Your task to perform on an android device: Go to network settings Image 0: 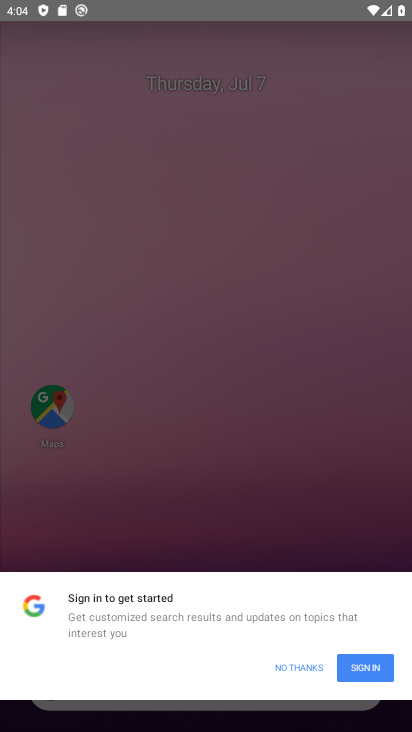
Step 0: press home button
Your task to perform on an android device: Go to network settings Image 1: 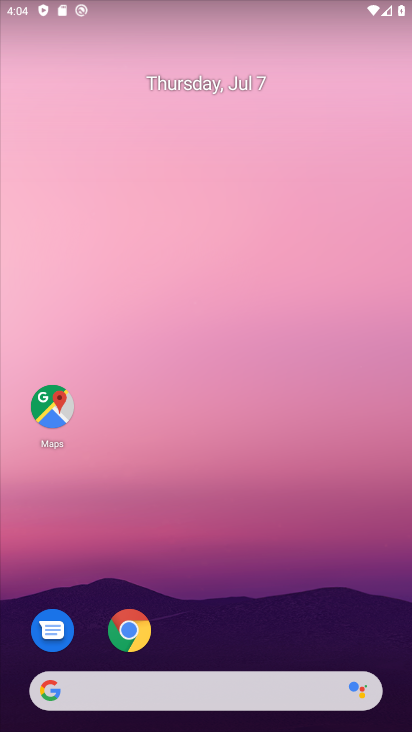
Step 1: drag from (212, 626) to (296, 45)
Your task to perform on an android device: Go to network settings Image 2: 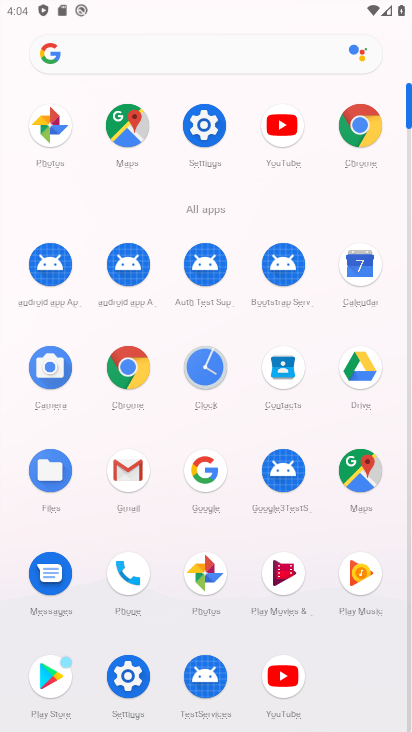
Step 2: click (142, 682)
Your task to perform on an android device: Go to network settings Image 3: 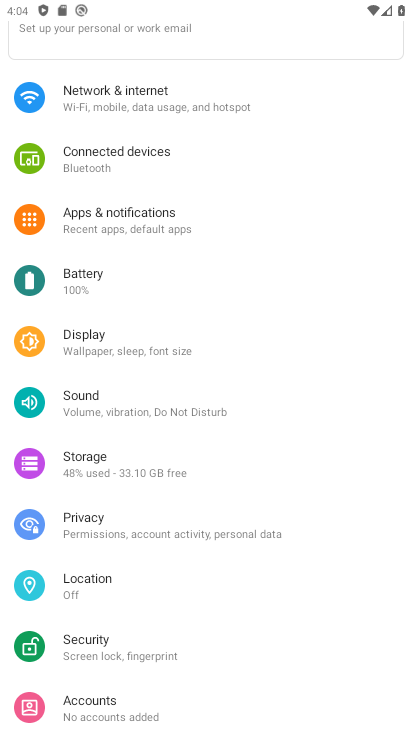
Step 3: click (123, 98)
Your task to perform on an android device: Go to network settings Image 4: 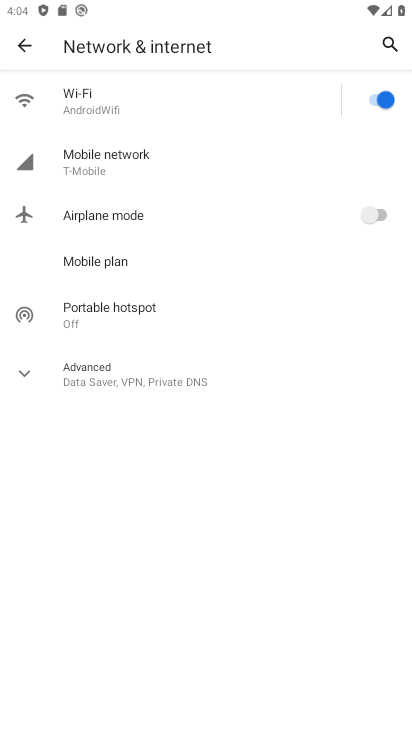
Step 4: click (157, 163)
Your task to perform on an android device: Go to network settings Image 5: 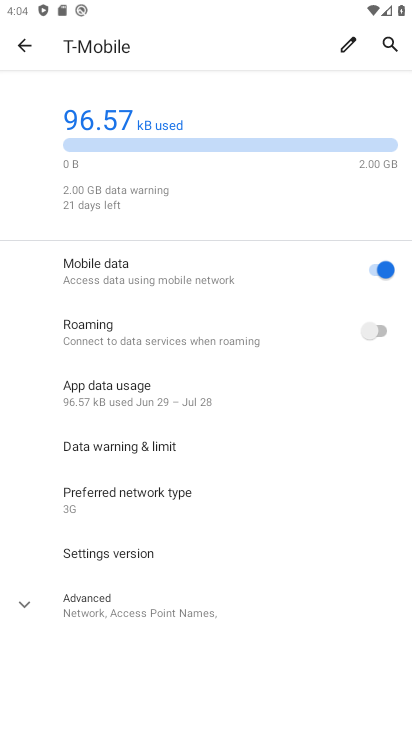
Step 5: task complete